Your task to perform on an android device: Open calendar and show me the first week of next month Image 0: 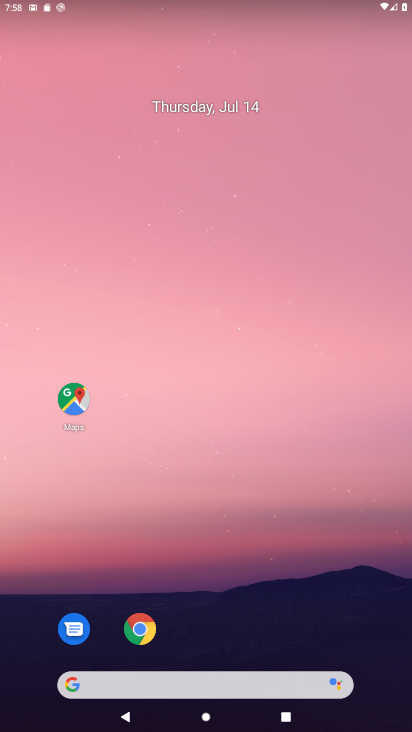
Step 0: drag from (283, 471) to (233, 88)
Your task to perform on an android device: Open calendar and show me the first week of next month Image 1: 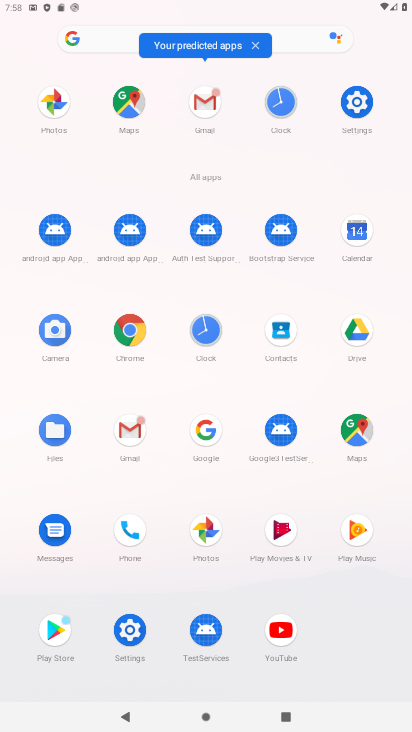
Step 1: click (355, 232)
Your task to perform on an android device: Open calendar and show me the first week of next month Image 2: 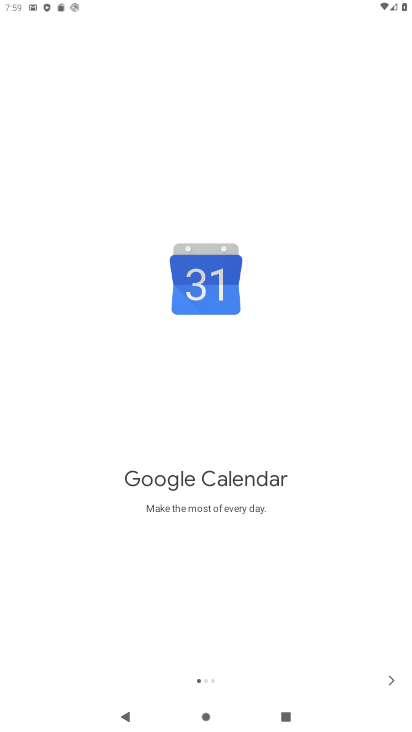
Step 2: click (382, 679)
Your task to perform on an android device: Open calendar and show me the first week of next month Image 3: 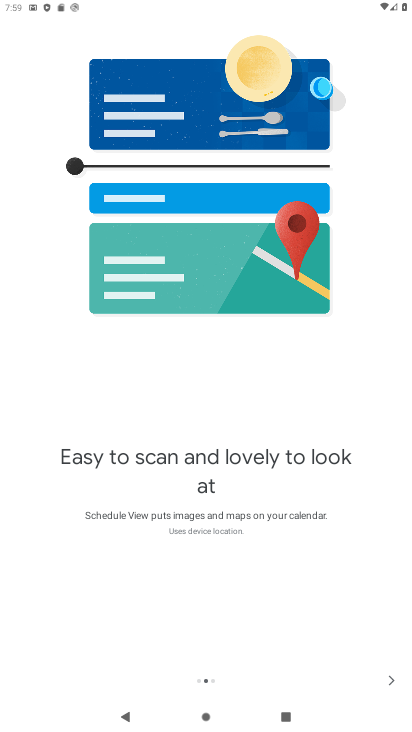
Step 3: click (383, 679)
Your task to perform on an android device: Open calendar and show me the first week of next month Image 4: 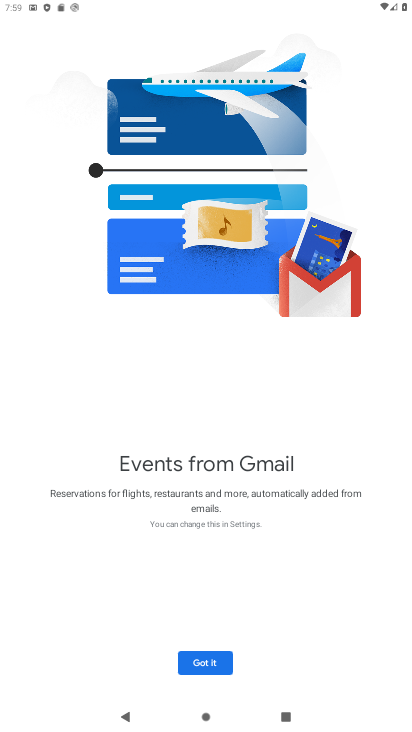
Step 4: click (220, 672)
Your task to perform on an android device: Open calendar and show me the first week of next month Image 5: 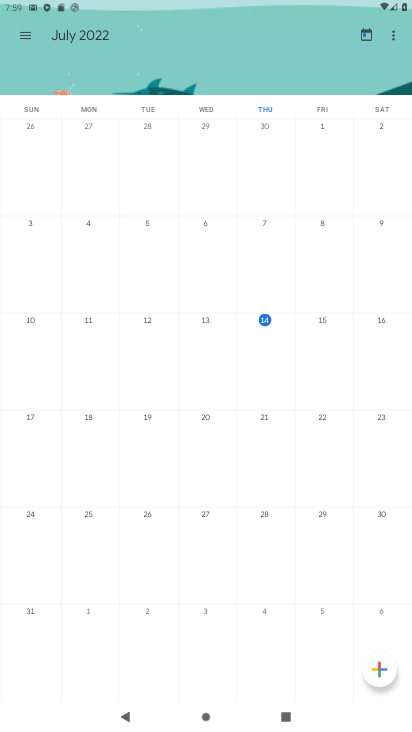
Step 5: drag from (200, 450) to (5, 446)
Your task to perform on an android device: Open calendar and show me the first week of next month Image 6: 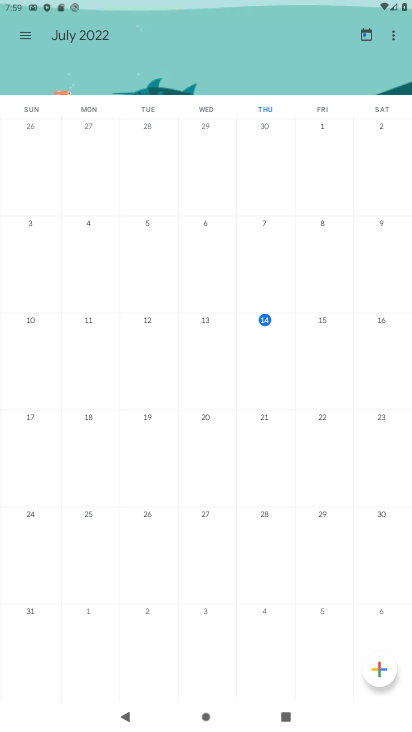
Step 6: click (274, 219)
Your task to perform on an android device: Open calendar and show me the first week of next month Image 7: 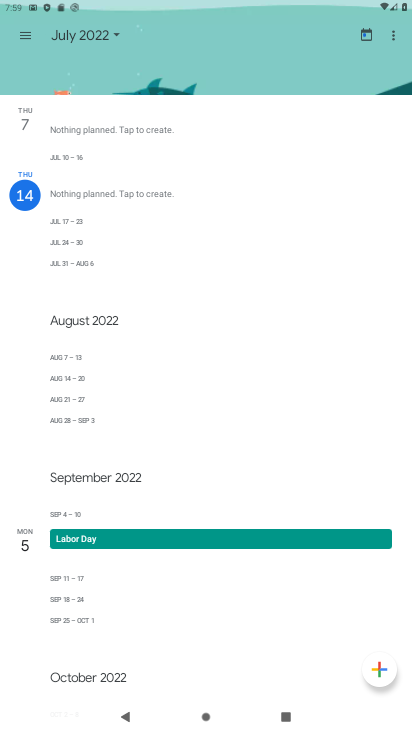
Step 7: task complete